Your task to perform on an android device: What is the news today? Image 0: 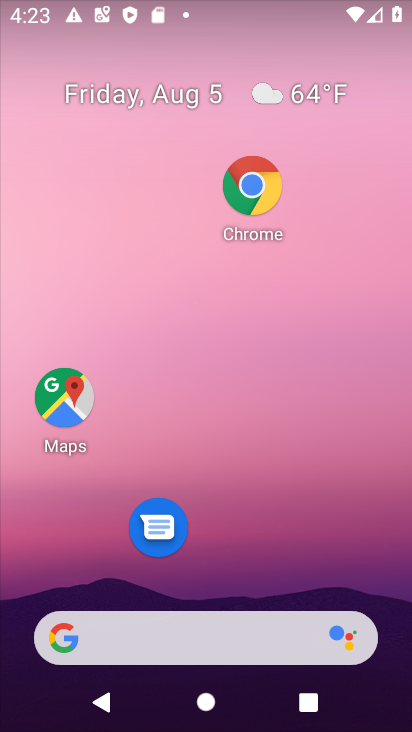
Step 0: drag from (229, 572) to (228, 159)
Your task to perform on an android device: What is the news today? Image 1: 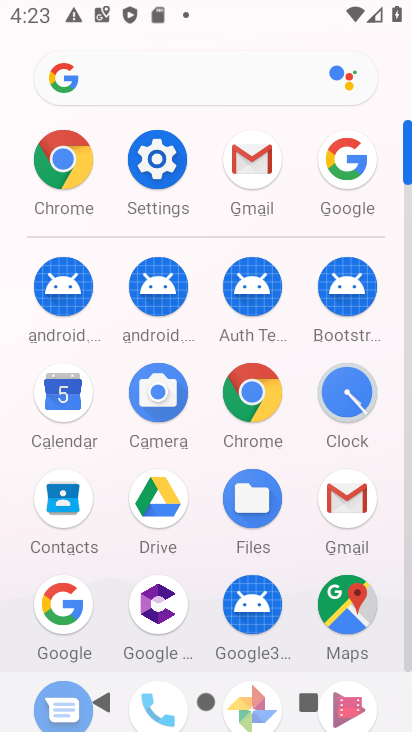
Step 1: task complete